Your task to perform on an android device: Open location settings Image 0: 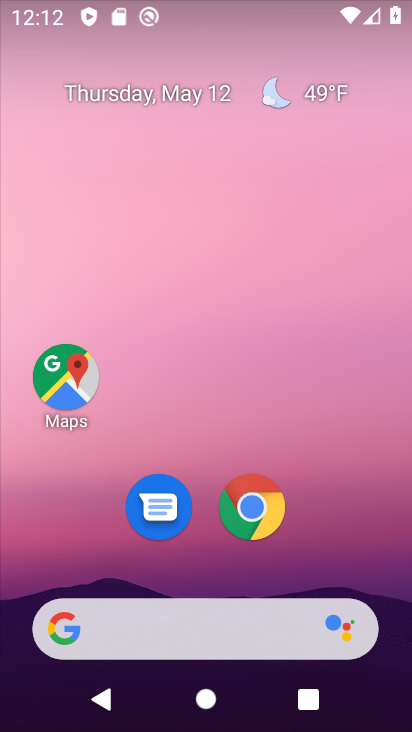
Step 0: drag from (311, 577) to (316, 15)
Your task to perform on an android device: Open location settings Image 1: 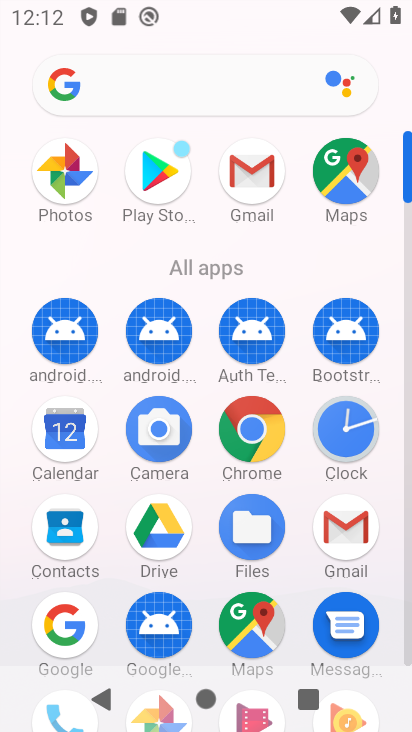
Step 1: drag from (201, 607) to (206, 206)
Your task to perform on an android device: Open location settings Image 2: 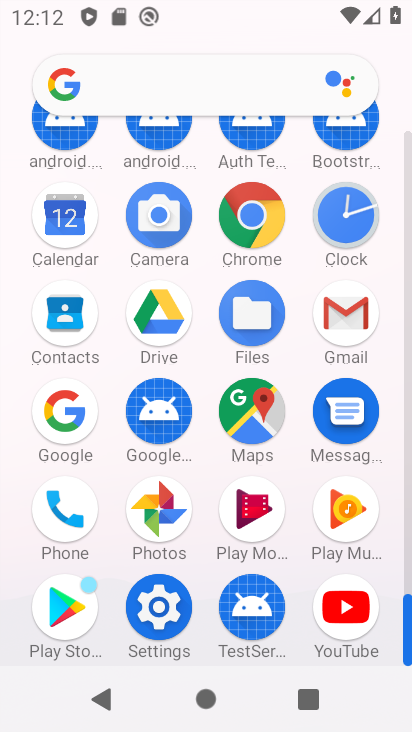
Step 2: click (158, 611)
Your task to perform on an android device: Open location settings Image 3: 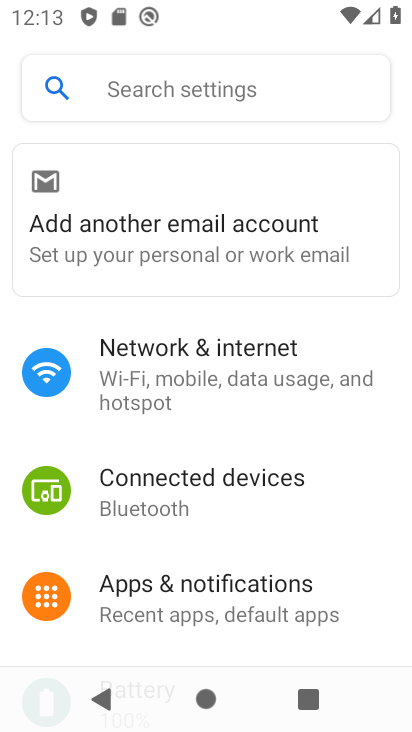
Step 3: drag from (174, 607) to (188, 306)
Your task to perform on an android device: Open location settings Image 4: 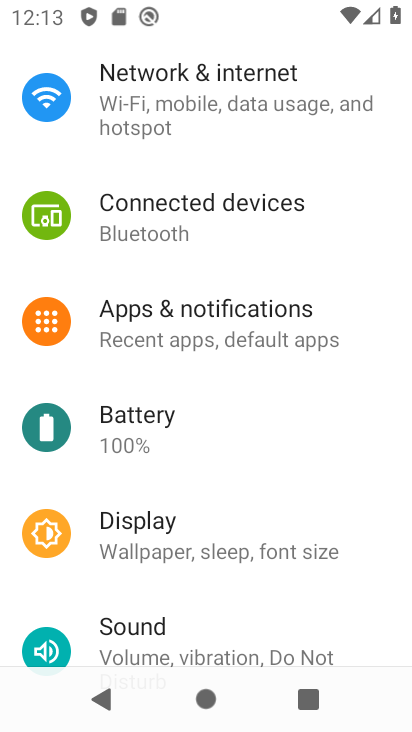
Step 4: drag from (163, 562) to (170, 408)
Your task to perform on an android device: Open location settings Image 5: 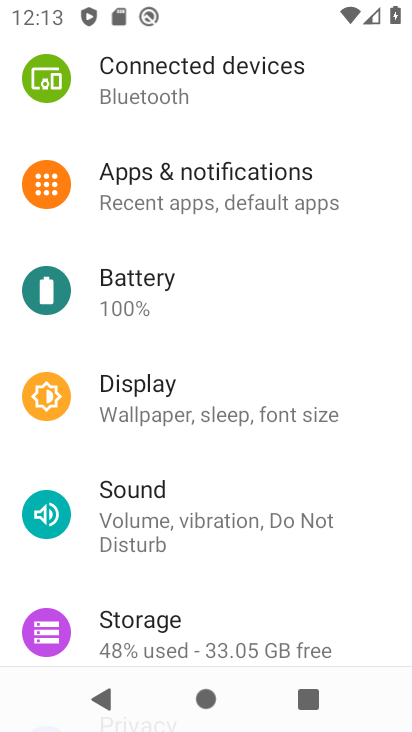
Step 5: drag from (148, 530) to (209, 321)
Your task to perform on an android device: Open location settings Image 6: 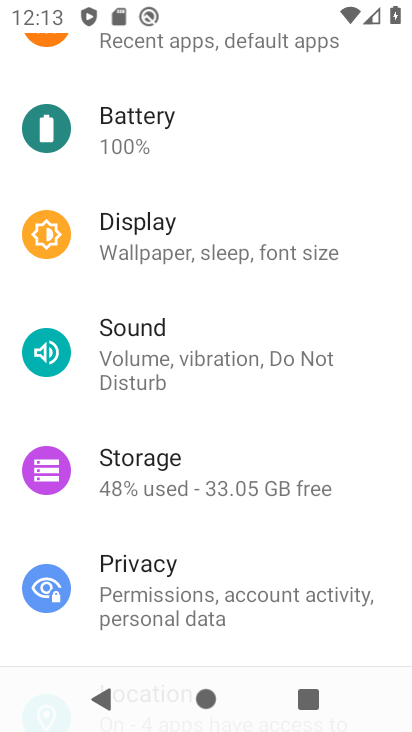
Step 6: drag from (189, 563) to (187, 393)
Your task to perform on an android device: Open location settings Image 7: 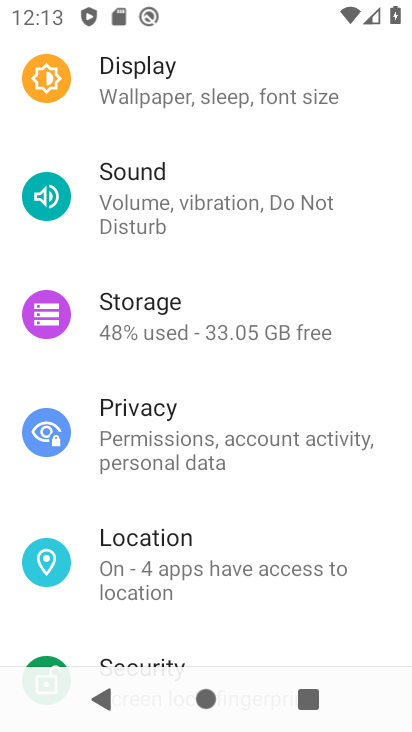
Step 7: click (193, 544)
Your task to perform on an android device: Open location settings Image 8: 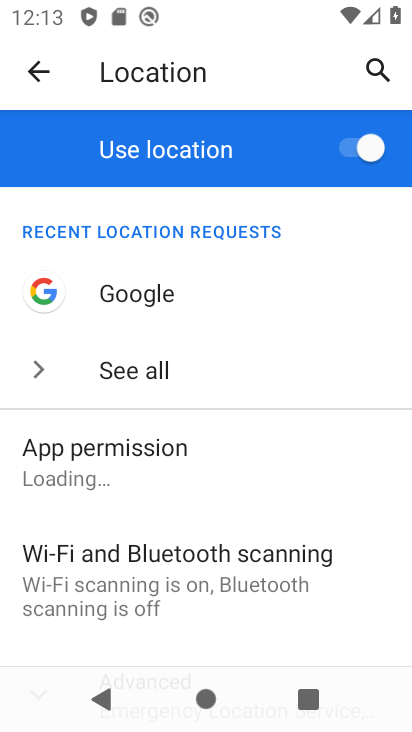
Step 8: task complete